Your task to perform on an android device: install app "Etsy: Buy & Sell Unique Items" Image 0: 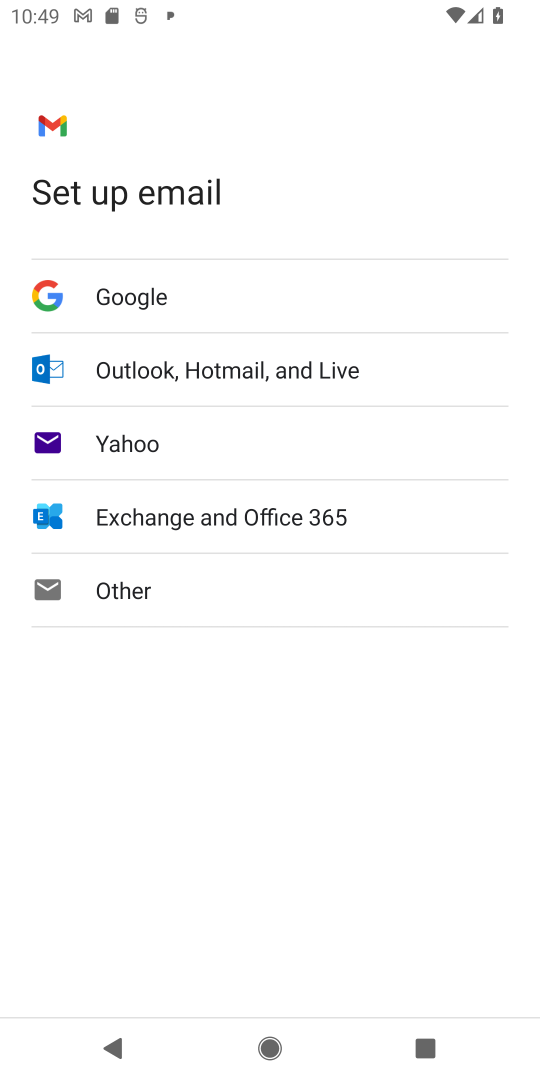
Step 0: press home button
Your task to perform on an android device: install app "Etsy: Buy & Sell Unique Items" Image 1: 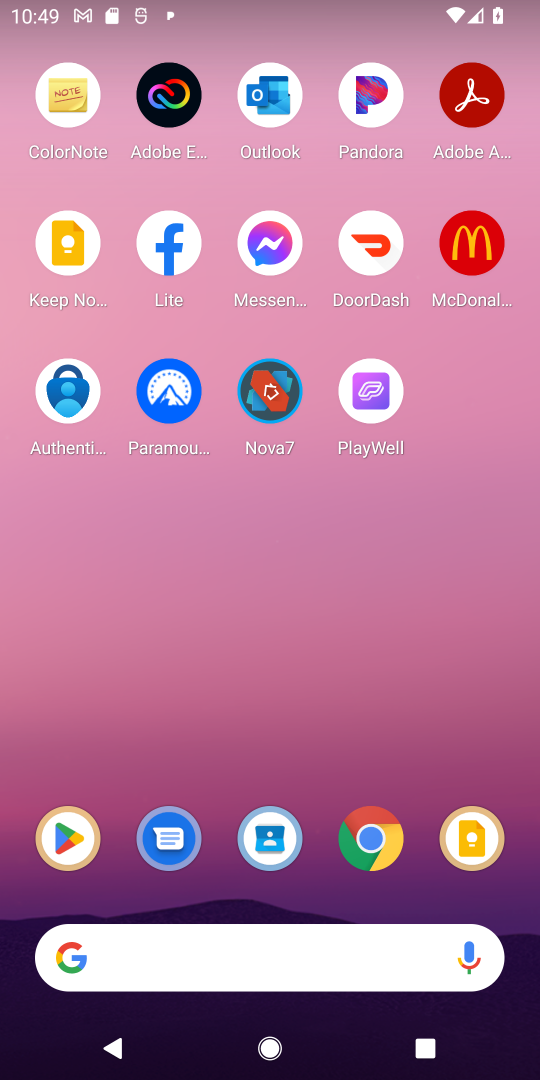
Step 1: click (60, 826)
Your task to perform on an android device: install app "Etsy: Buy & Sell Unique Items" Image 2: 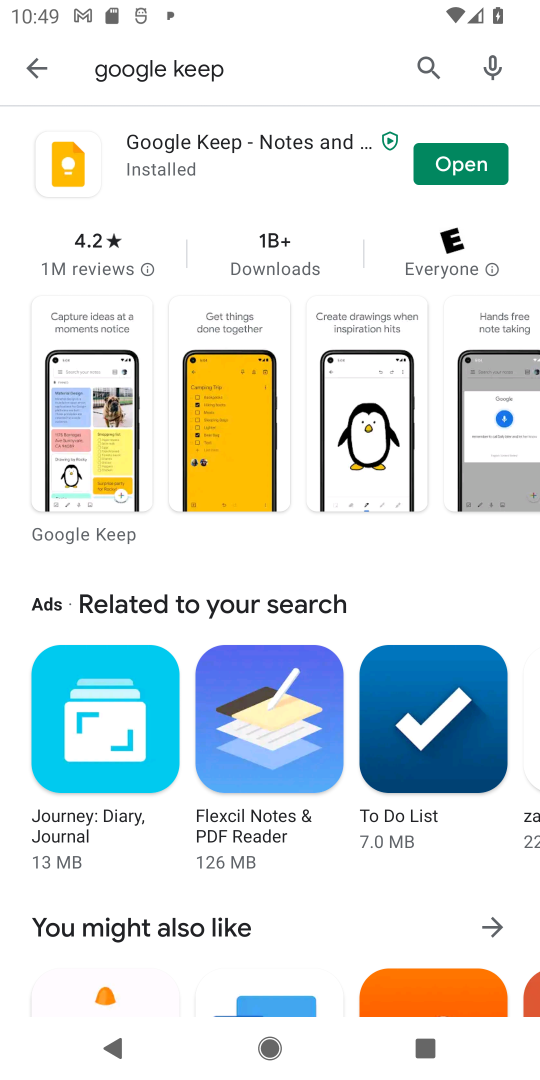
Step 2: click (177, 68)
Your task to perform on an android device: install app "Etsy: Buy & Sell Unique Items" Image 3: 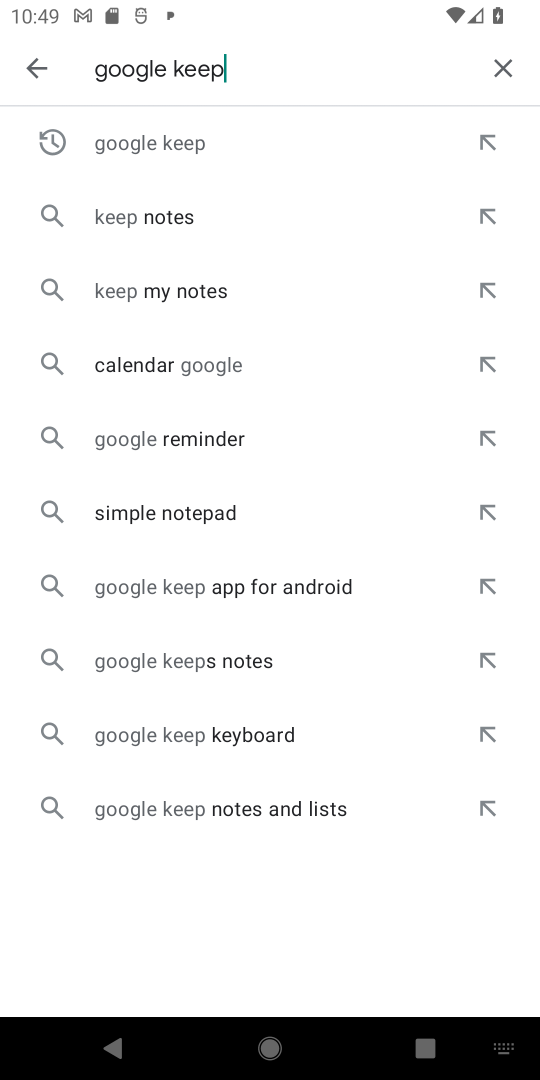
Step 3: click (489, 63)
Your task to perform on an android device: install app "Etsy: Buy & Sell Unique Items" Image 4: 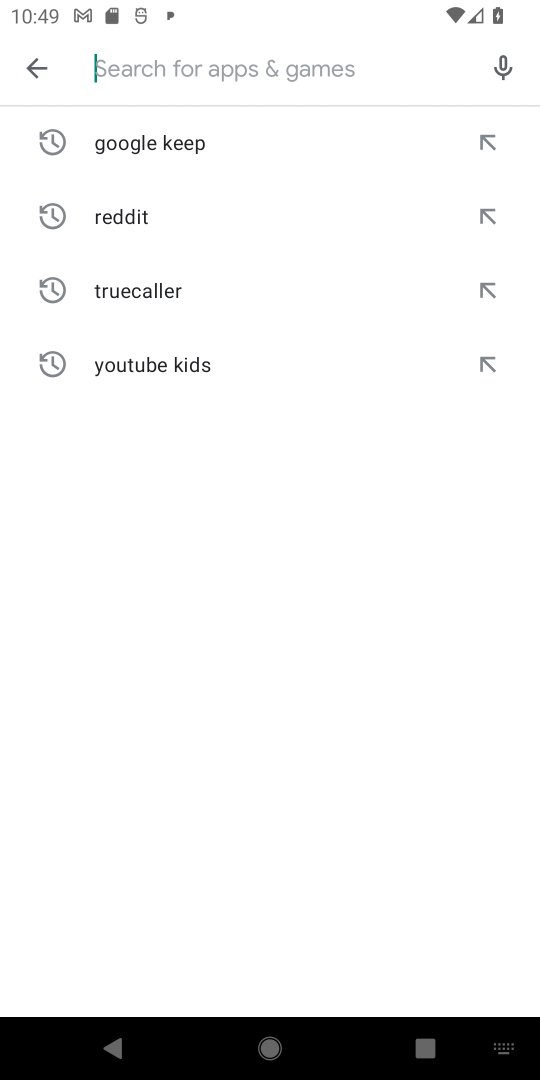
Step 4: type "Etsy"
Your task to perform on an android device: install app "Etsy: Buy & Sell Unique Items" Image 5: 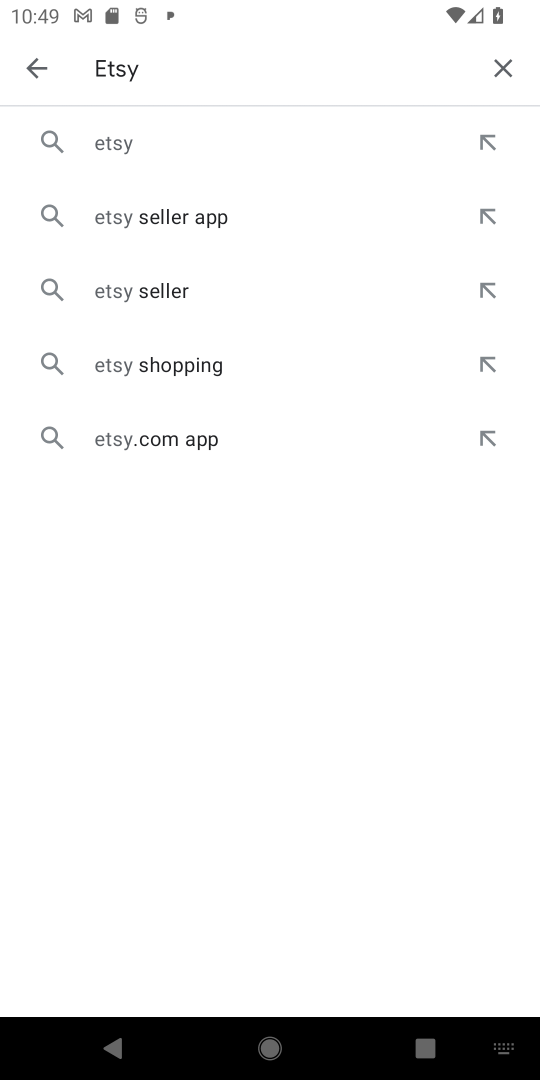
Step 5: click (137, 146)
Your task to perform on an android device: install app "Etsy: Buy & Sell Unique Items" Image 6: 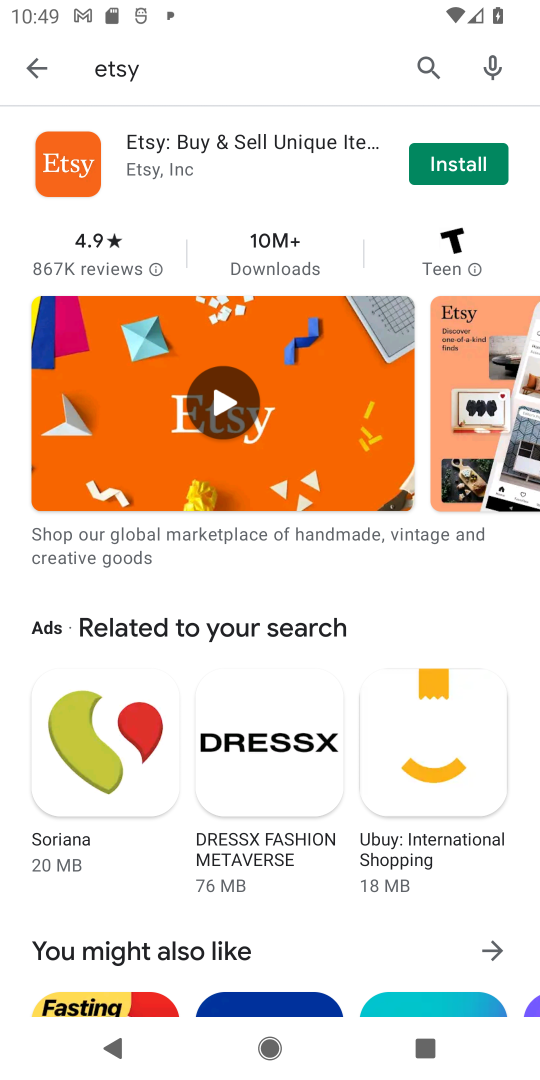
Step 6: click (459, 162)
Your task to perform on an android device: install app "Etsy: Buy & Sell Unique Items" Image 7: 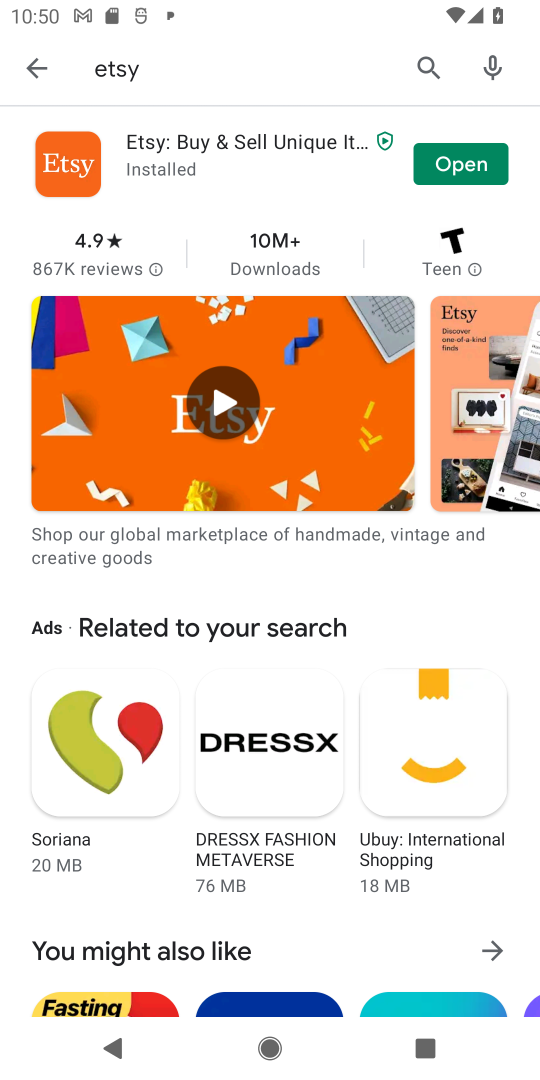
Step 7: task complete